Your task to perform on an android device: turn off location history Image 0: 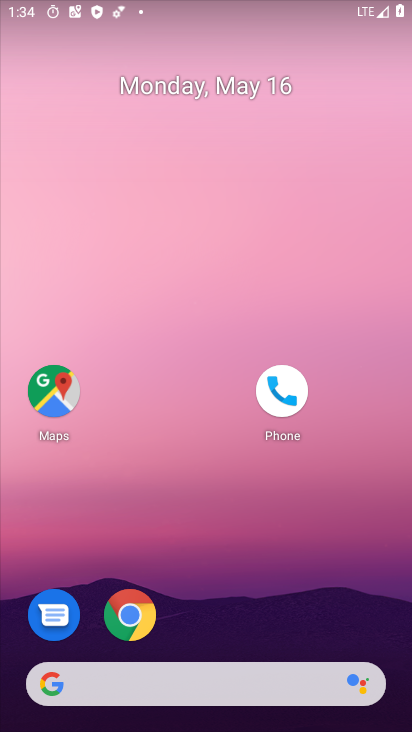
Step 0: drag from (228, 678) to (308, 142)
Your task to perform on an android device: turn off location history Image 1: 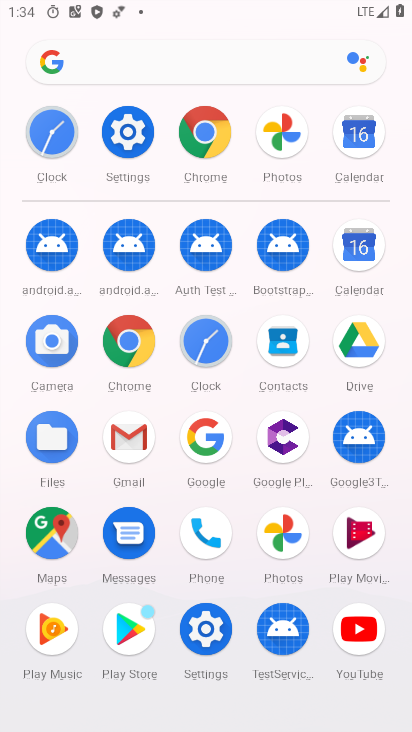
Step 1: click (137, 145)
Your task to perform on an android device: turn off location history Image 2: 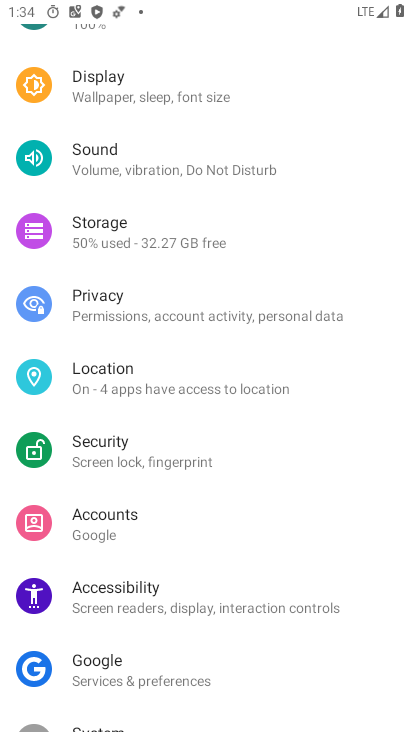
Step 2: drag from (234, 698) to (282, 177)
Your task to perform on an android device: turn off location history Image 3: 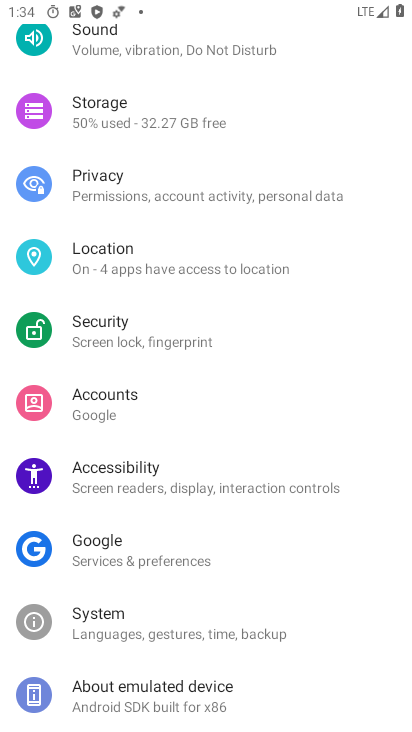
Step 3: click (164, 272)
Your task to perform on an android device: turn off location history Image 4: 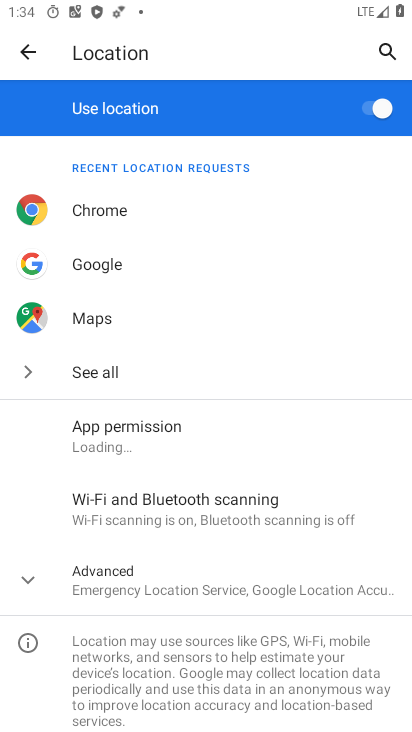
Step 4: click (253, 576)
Your task to perform on an android device: turn off location history Image 5: 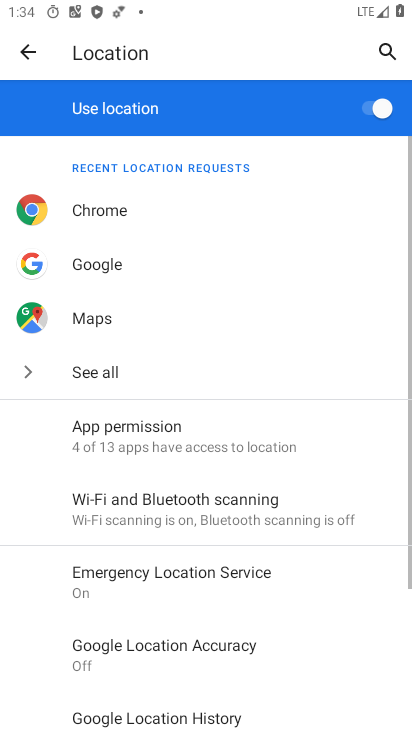
Step 5: drag from (252, 576) to (271, 215)
Your task to perform on an android device: turn off location history Image 6: 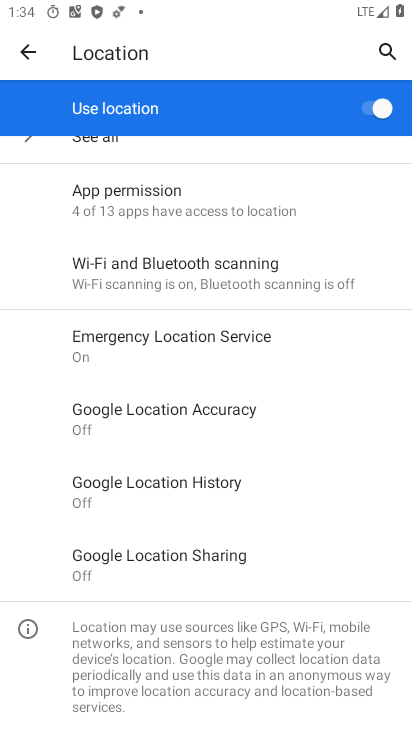
Step 6: click (235, 493)
Your task to perform on an android device: turn off location history Image 7: 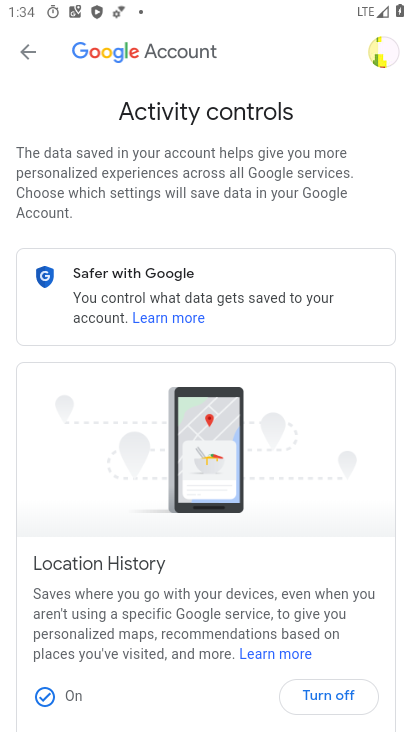
Step 7: drag from (272, 668) to (287, 348)
Your task to perform on an android device: turn off location history Image 8: 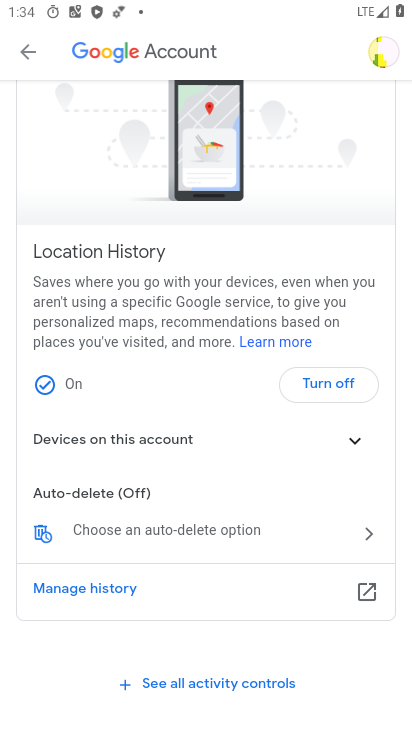
Step 8: click (323, 377)
Your task to perform on an android device: turn off location history Image 9: 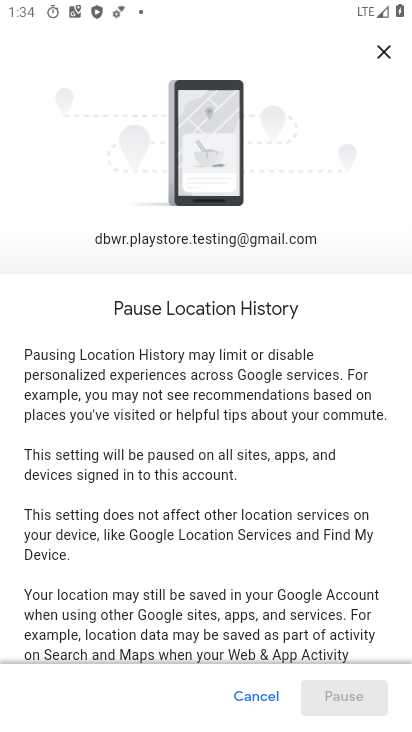
Step 9: drag from (402, 632) to (403, 276)
Your task to perform on an android device: turn off location history Image 10: 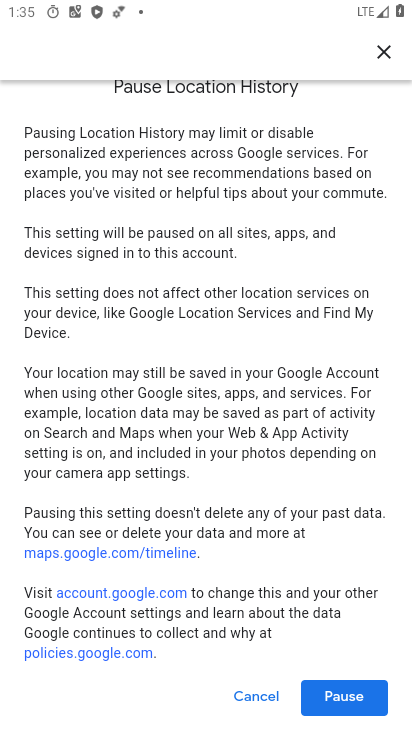
Step 10: click (350, 689)
Your task to perform on an android device: turn off location history Image 11: 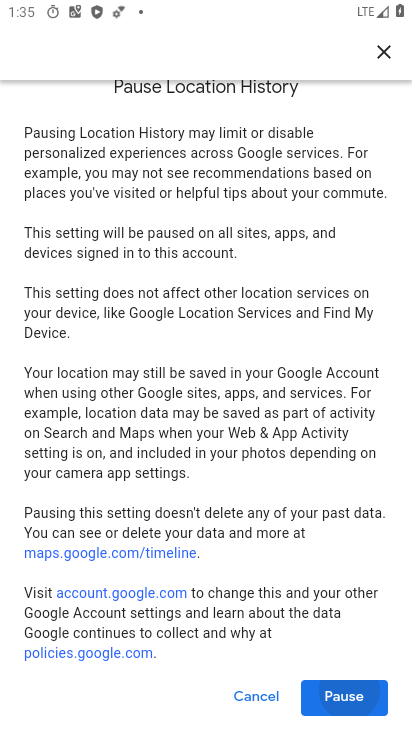
Step 11: click (348, 689)
Your task to perform on an android device: turn off location history Image 12: 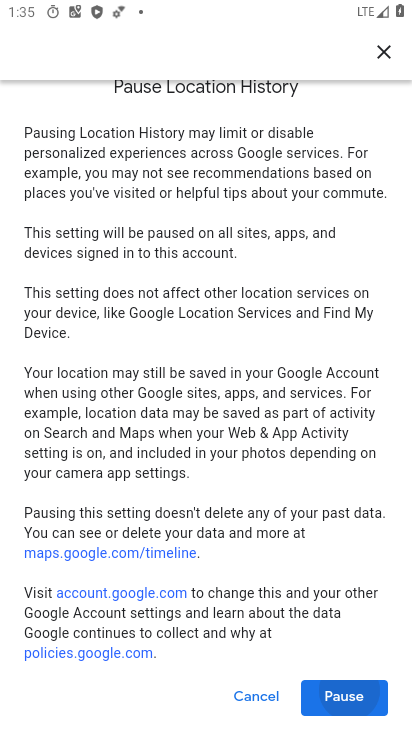
Step 12: click (348, 689)
Your task to perform on an android device: turn off location history Image 13: 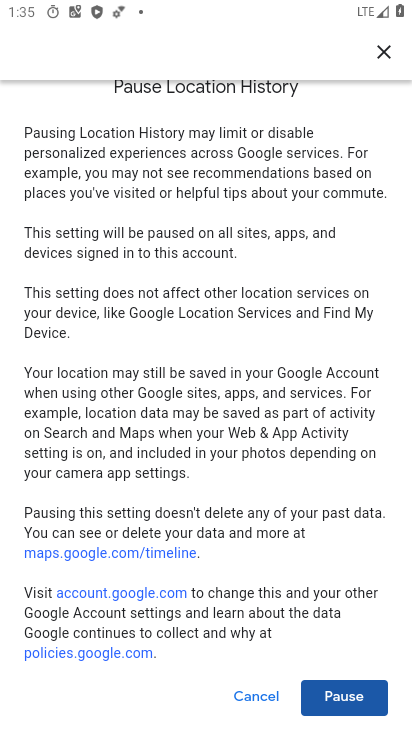
Step 13: click (348, 689)
Your task to perform on an android device: turn off location history Image 14: 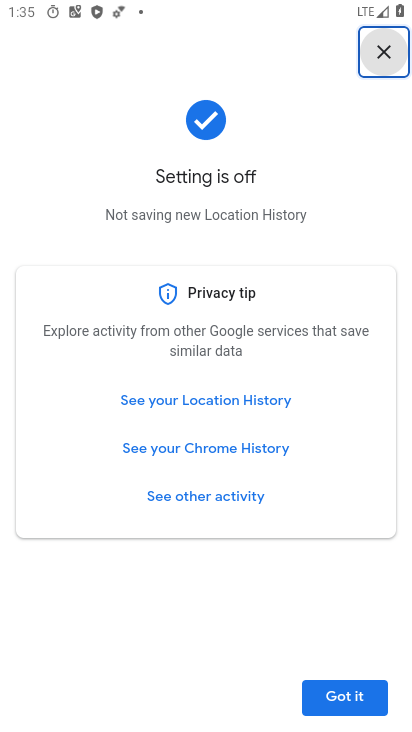
Step 14: press home button
Your task to perform on an android device: turn off location history Image 15: 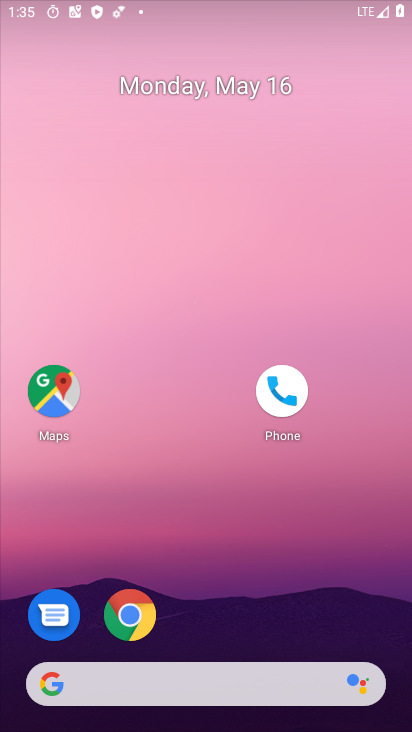
Step 15: drag from (320, 692) to (315, 177)
Your task to perform on an android device: turn off location history Image 16: 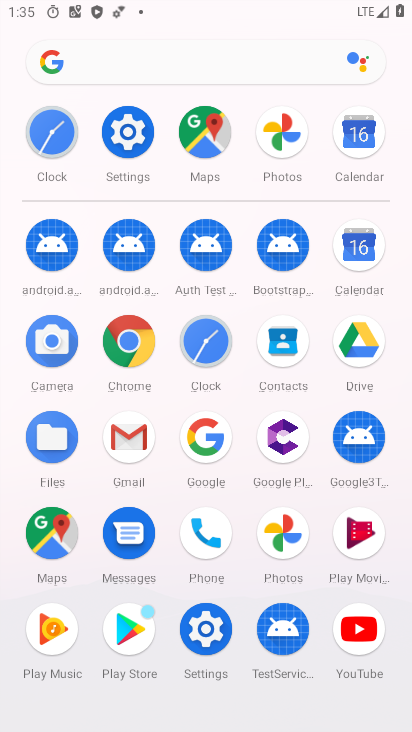
Step 16: click (136, 122)
Your task to perform on an android device: turn off location history Image 17: 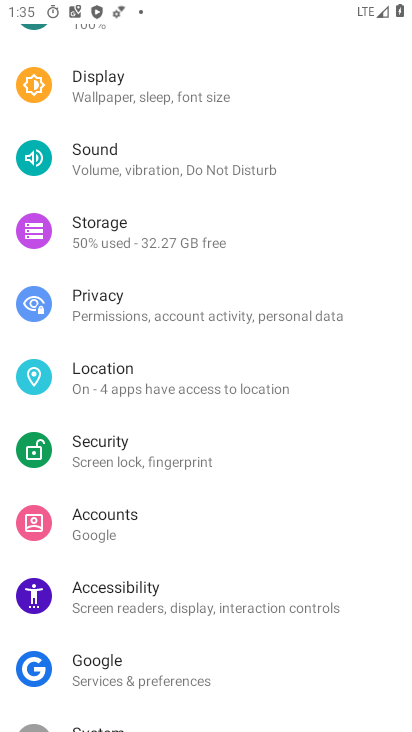
Step 17: click (159, 381)
Your task to perform on an android device: turn off location history Image 18: 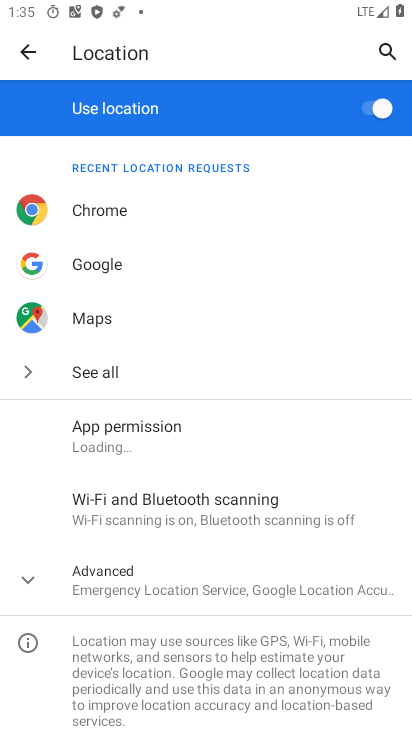
Step 18: click (171, 575)
Your task to perform on an android device: turn off location history Image 19: 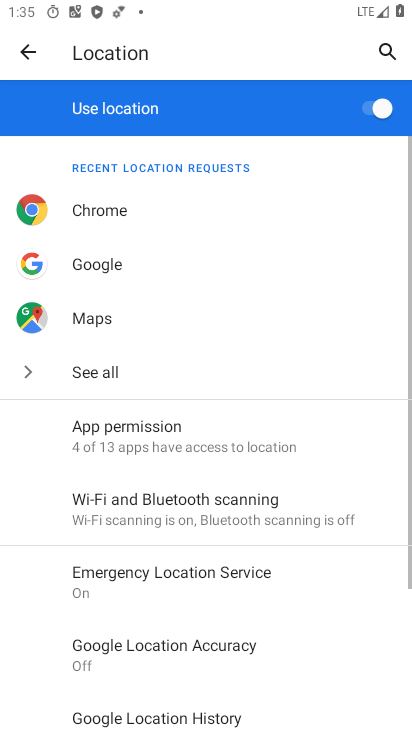
Step 19: click (151, 555)
Your task to perform on an android device: turn off location history Image 20: 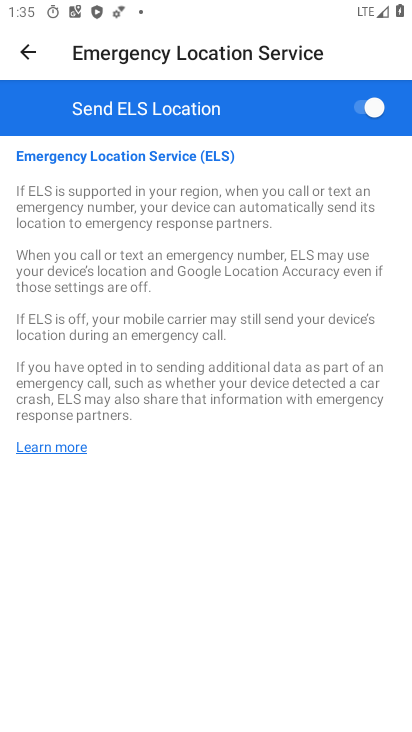
Step 20: task complete